Your task to perform on an android device: Go to Google maps Image 0: 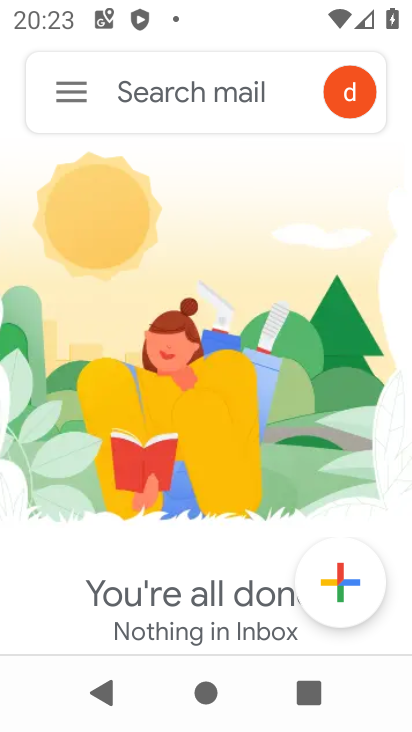
Step 0: press home button
Your task to perform on an android device: Go to Google maps Image 1: 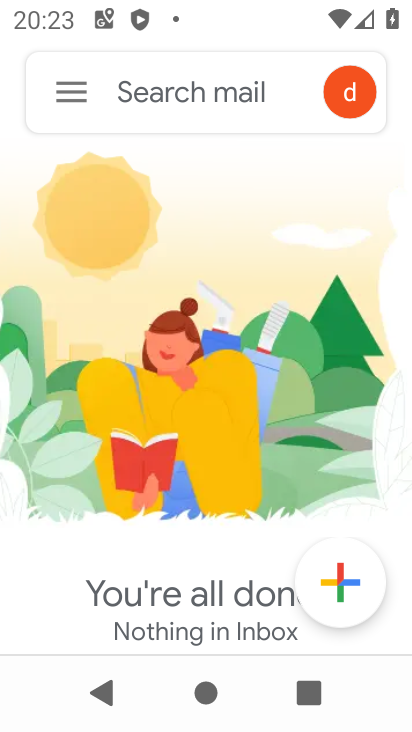
Step 1: drag from (279, 450) to (212, 15)
Your task to perform on an android device: Go to Google maps Image 2: 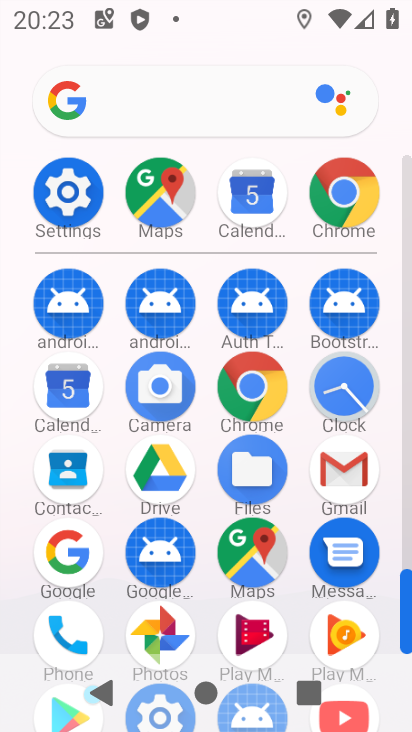
Step 2: click (151, 188)
Your task to perform on an android device: Go to Google maps Image 3: 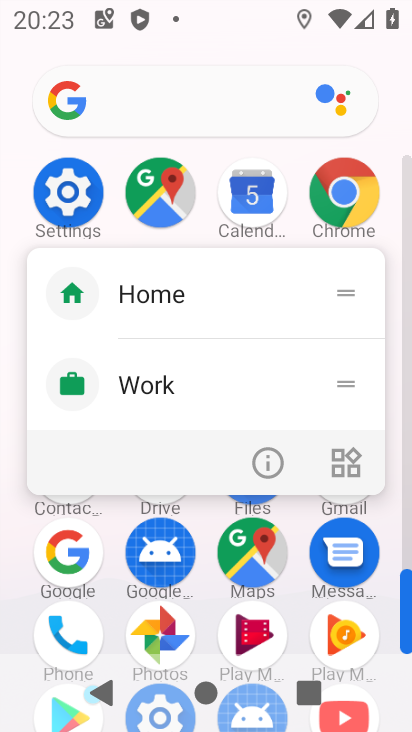
Step 3: click (262, 467)
Your task to perform on an android device: Go to Google maps Image 4: 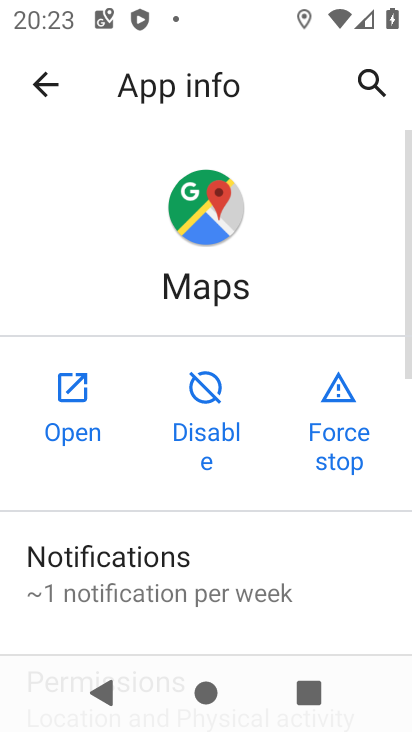
Step 4: click (84, 421)
Your task to perform on an android device: Go to Google maps Image 5: 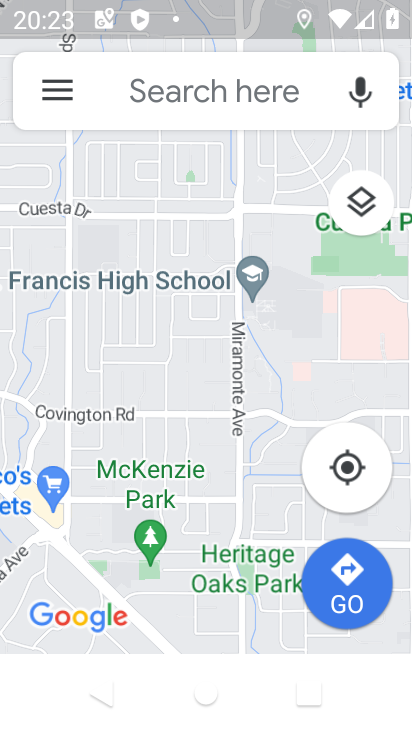
Step 5: task complete